Your task to perform on an android device: Open display settings Image 0: 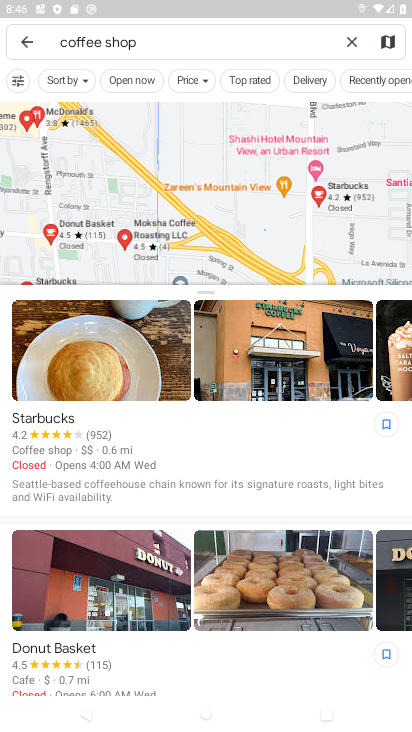
Step 0: press home button
Your task to perform on an android device: Open display settings Image 1: 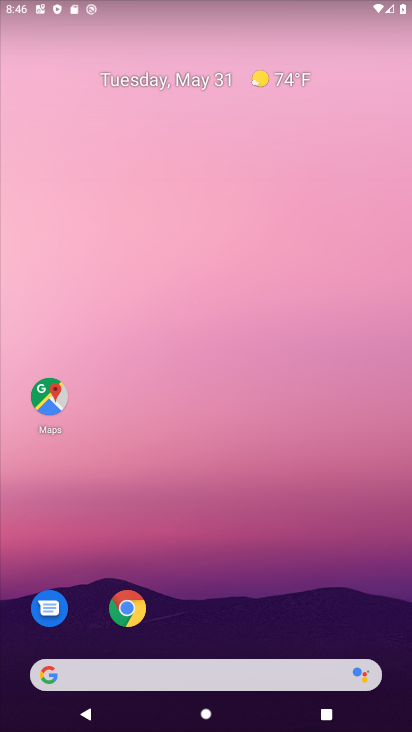
Step 1: drag from (226, 646) to (154, 218)
Your task to perform on an android device: Open display settings Image 2: 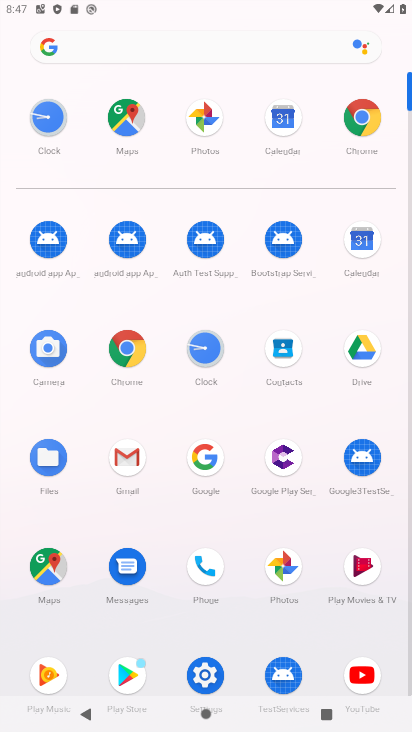
Step 2: click (217, 673)
Your task to perform on an android device: Open display settings Image 3: 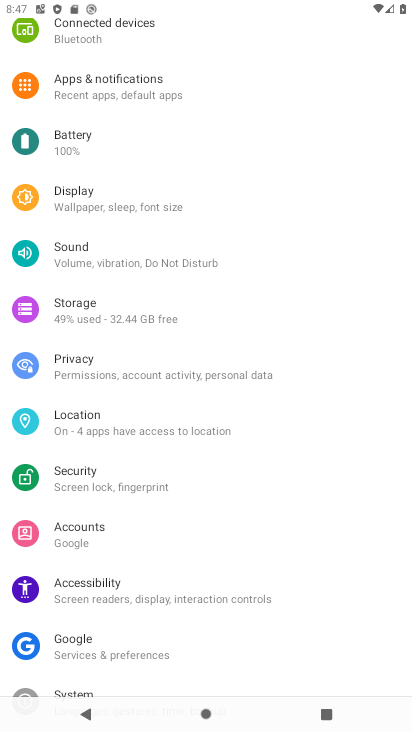
Step 3: click (90, 202)
Your task to perform on an android device: Open display settings Image 4: 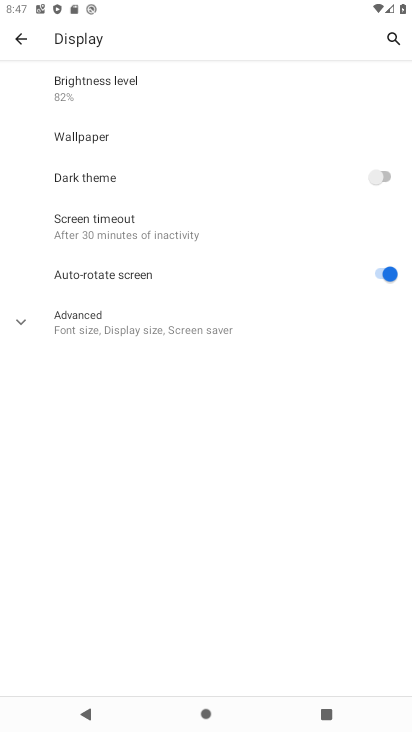
Step 4: click (96, 316)
Your task to perform on an android device: Open display settings Image 5: 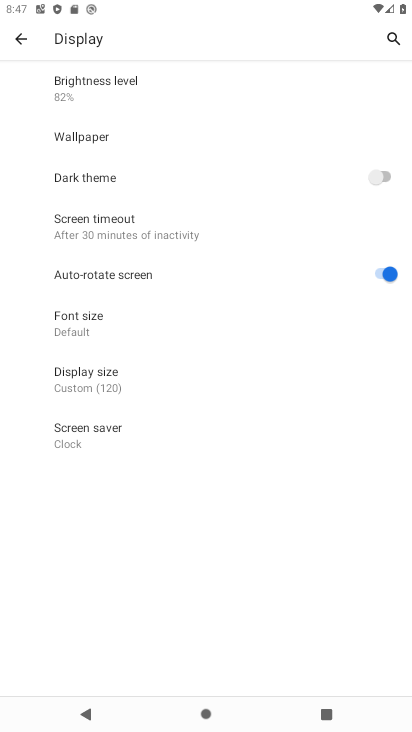
Step 5: task complete